Your task to perform on an android device: Open settings Image 0: 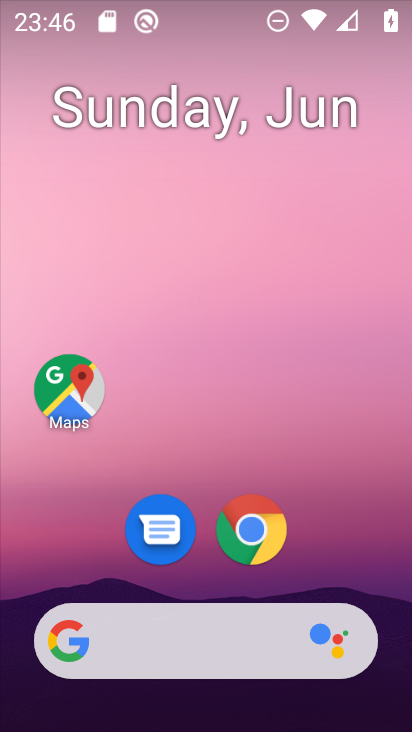
Step 0: drag from (396, 627) to (334, 43)
Your task to perform on an android device: Open settings Image 1: 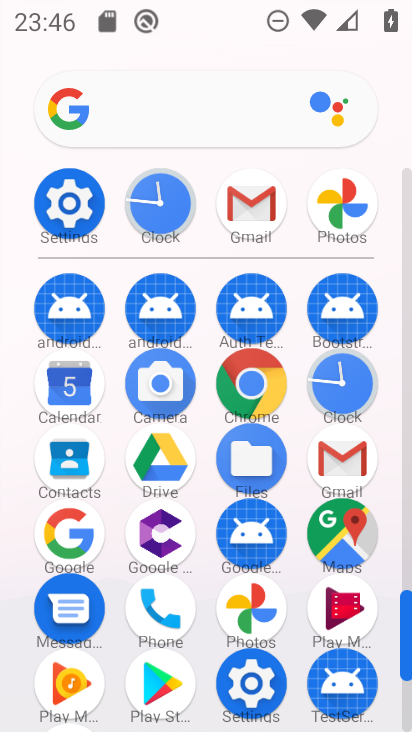
Step 1: click (254, 684)
Your task to perform on an android device: Open settings Image 2: 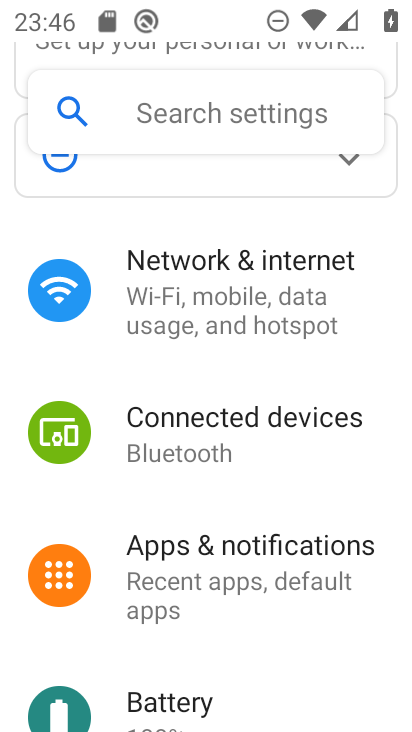
Step 2: task complete